Your task to perform on an android device: Go to Yahoo.com Image 0: 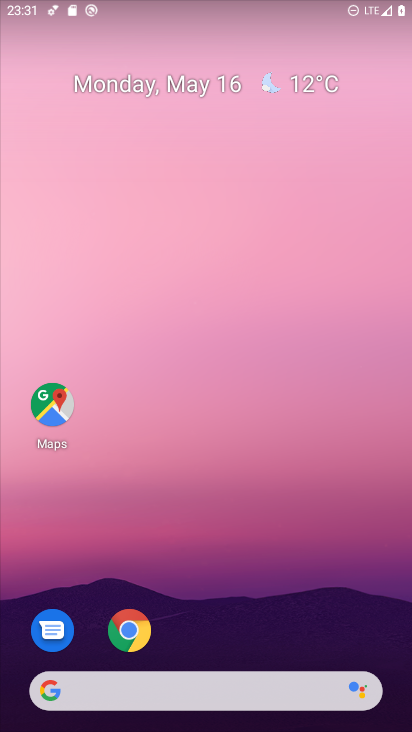
Step 0: click (281, 700)
Your task to perform on an android device: Go to Yahoo.com Image 1: 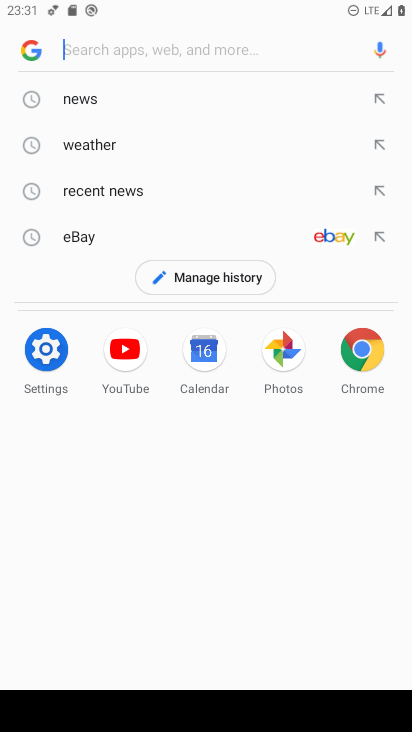
Step 1: type "yahoo.com"
Your task to perform on an android device: Go to Yahoo.com Image 2: 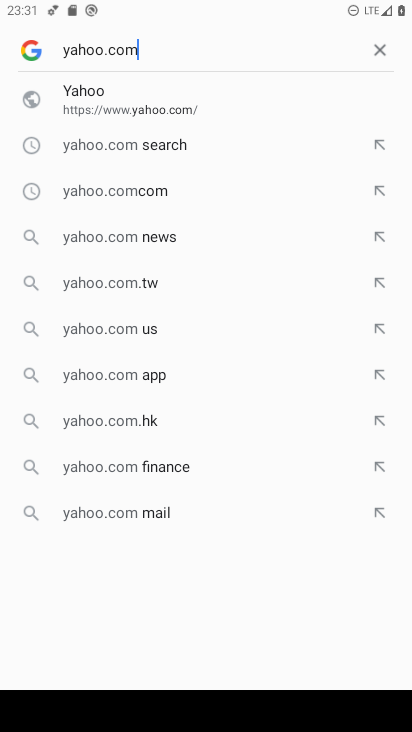
Step 2: click (96, 88)
Your task to perform on an android device: Go to Yahoo.com Image 3: 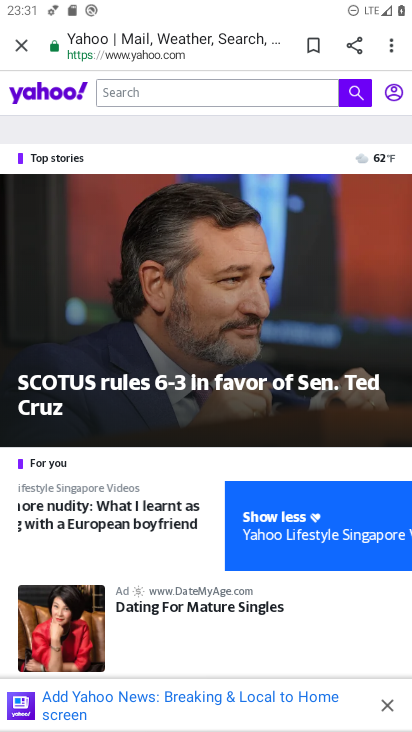
Step 3: task complete